Your task to perform on an android device: Go to network settings Image 0: 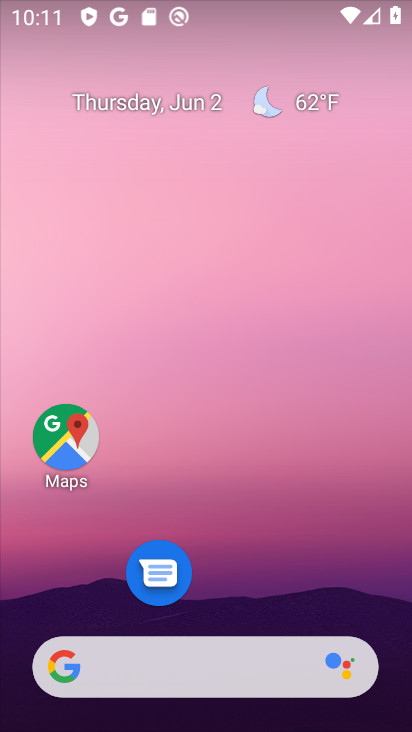
Step 0: drag from (217, 621) to (165, 46)
Your task to perform on an android device: Go to network settings Image 1: 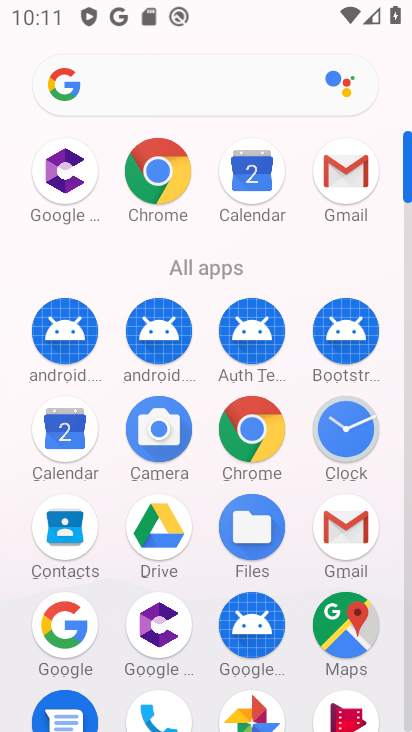
Step 1: drag from (117, 577) to (76, 148)
Your task to perform on an android device: Go to network settings Image 2: 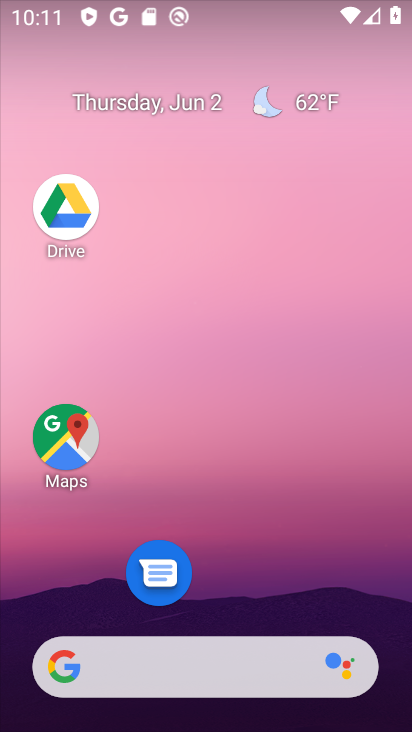
Step 2: drag from (252, 589) to (167, 57)
Your task to perform on an android device: Go to network settings Image 3: 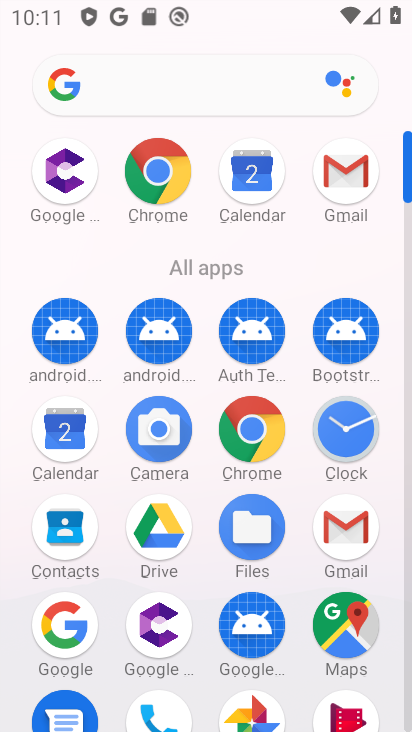
Step 3: drag from (202, 535) to (134, 131)
Your task to perform on an android device: Go to network settings Image 4: 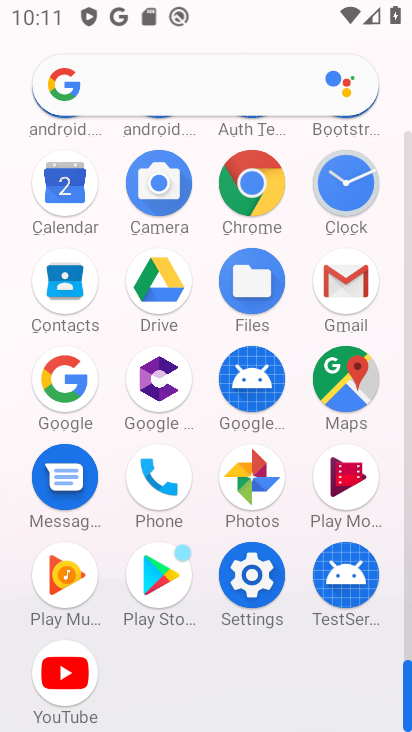
Step 4: click (242, 580)
Your task to perform on an android device: Go to network settings Image 5: 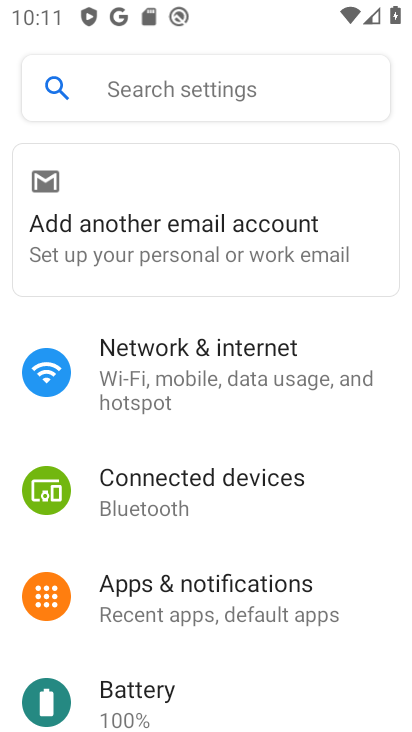
Step 5: click (182, 372)
Your task to perform on an android device: Go to network settings Image 6: 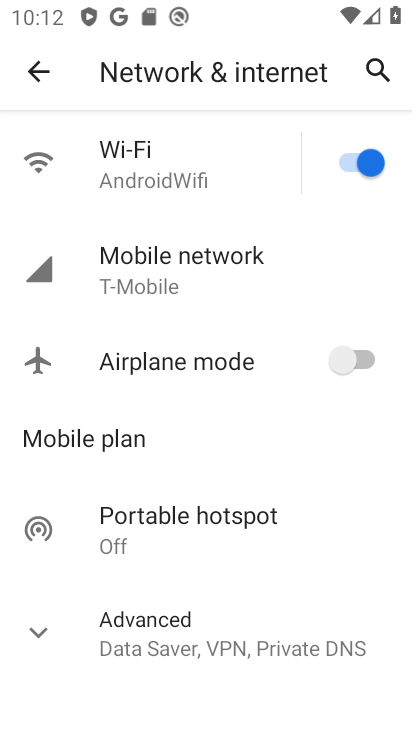
Step 6: click (236, 274)
Your task to perform on an android device: Go to network settings Image 7: 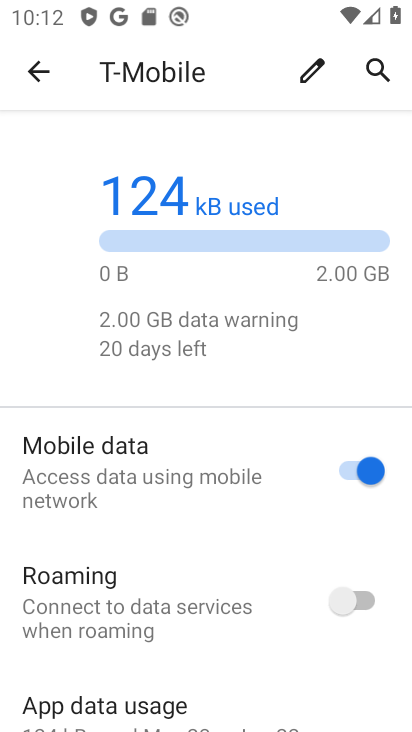
Step 7: task complete